Your task to perform on an android device: Show the shopping cart on bestbuy.com. Add "razer huntsman" to the cart on bestbuy.com Image 0: 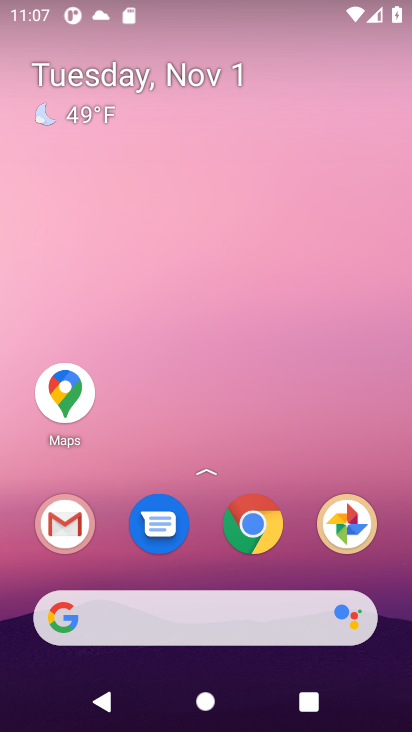
Step 0: press home button
Your task to perform on an android device: Show the shopping cart on bestbuy.com. Add "razer huntsman" to the cart on bestbuy.com Image 1: 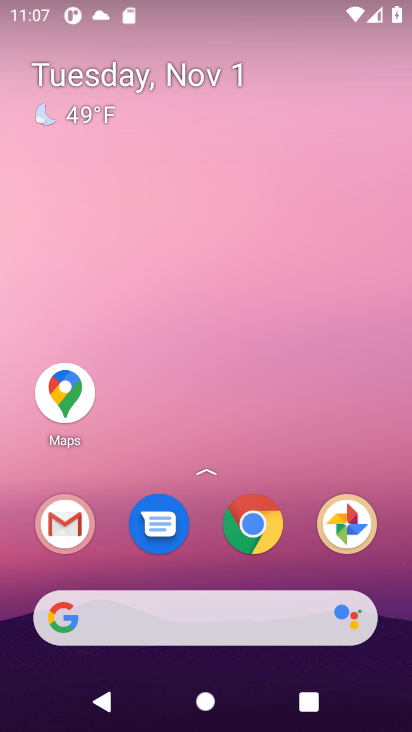
Step 1: press home button
Your task to perform on an android device: Show the shopping cart on bestbuy.com. Add "razer huntsman" to the cart on bestbuy.com Image 2: 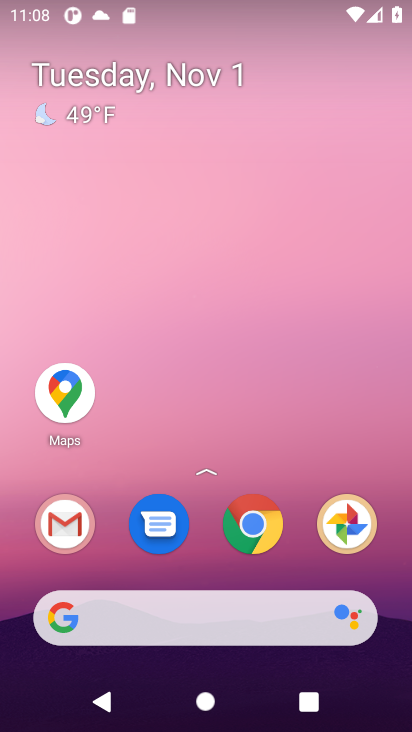
Step 2: click (87, 615)
Your task to perform on an android device: Show the shopping cart on bestbuy.com. Add "razer huntsman" to the cart on bestbuy.com Image 3: 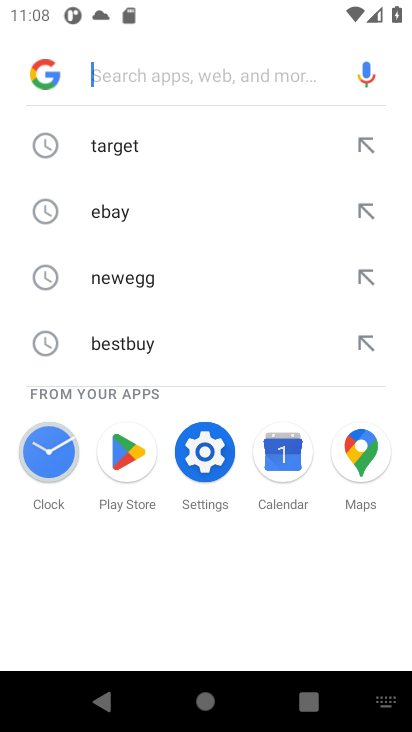
Step 3: type "bestbuy.com"
Your task to perform on an android device: Show the shopping cart on bestbuy.com. Add "razer huntsman" to the cart on bestbuy.com Image 4: 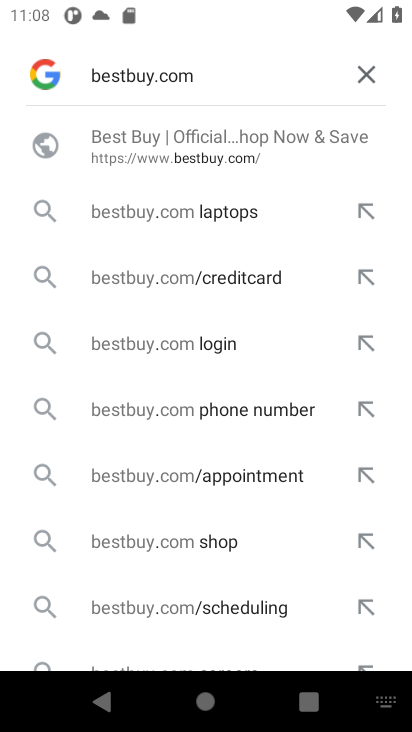
Step 4: press enter
Your task to perform on an android device: Show the shopping cart on bestbuy.com. Add "razer huntsman" to the cart on bestbuy.com Image 5: 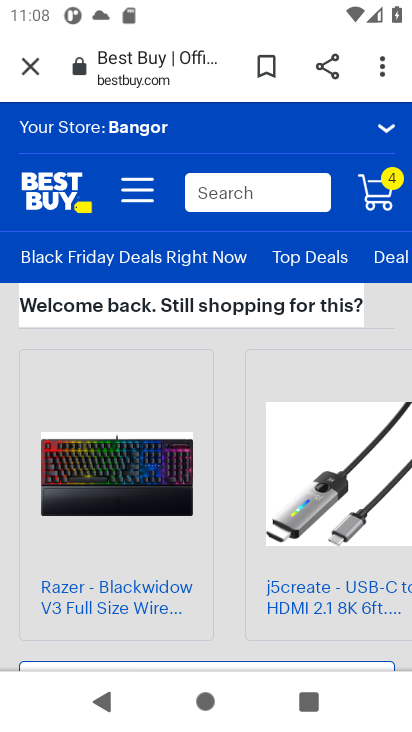
Step 5: click (380, 186)
Your task to perform on an android device: Show the shopping cart on bestbuy.com. Add "razer huntsman" to the cart on bestbuy.com Image 6: 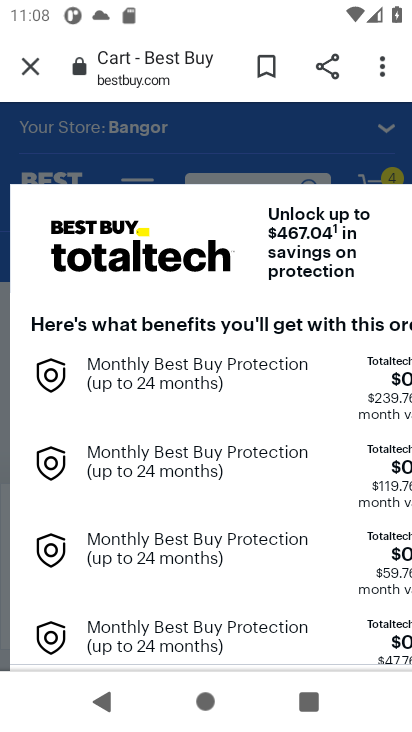
Step 6: click (212, 187)
Your task to perform on an android device: Show the shopping cart on bestbuy.com. Add "razer huntsman" to the cart on bestbuy.com Image 7: 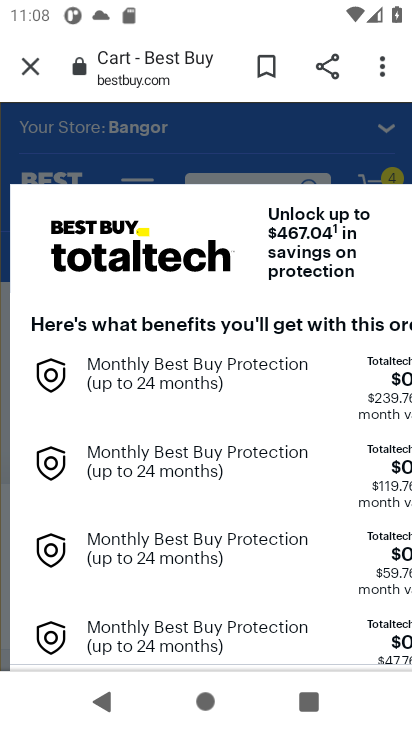
Step 7: drag from (200, 430) to (185, 147)
Your task to perform on an android device: Show the shopping cart on bestbuy.com. Add "razer huntsman" to the cart on bestbuy.com Image 8: 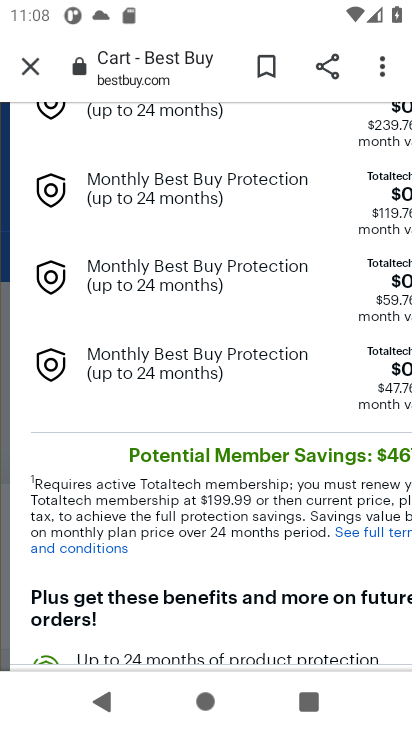
Step 8: drag from (181, 481) to (211, 152)
Your task to perform on an android device: Show the shopping cart on bestbuy.com. Add "razer huntsman" to the cart on bestbuy.com Image 9: 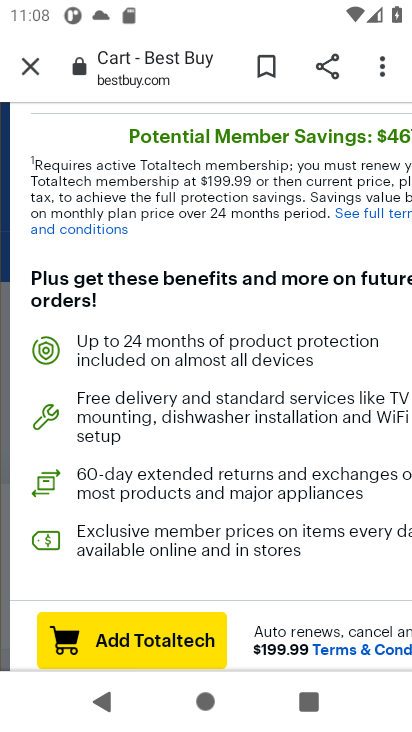
Step 9: drag from (157, 510) to (158, 145)
Your task to perform on an android device: Show the shopping cart on bestbuy.com. Add "razer huntsman" to the cart on bestbuy.com Image 10: 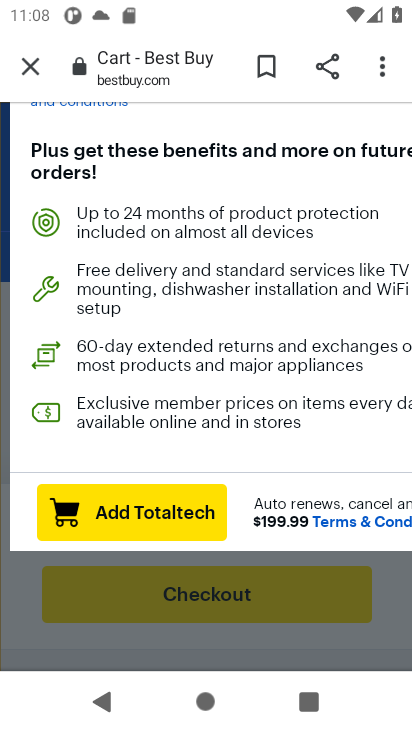
Step 10: click (31, 619)
Your task to perform on an android device: Show the shopping cart on bestbuy.com. Add "razer huntsman" to the cart on bestbuy.com Image 11: 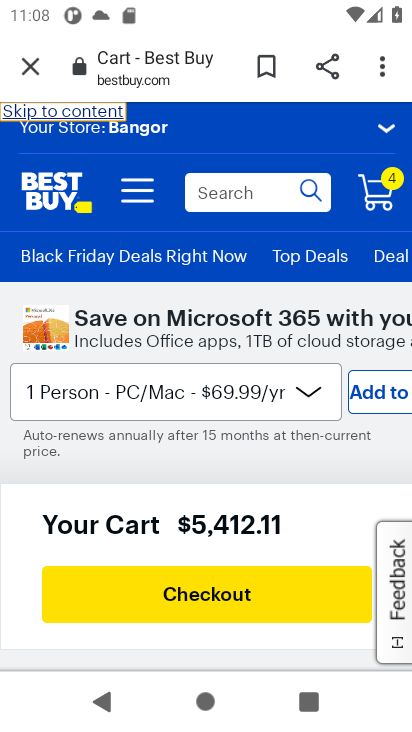
Step 11: click (246, 190)
Your task to perform on an android device: Show the shopping cart on bestbuy.com. Add "razer huntsman" to the cart on bestbuy.com Image 12: 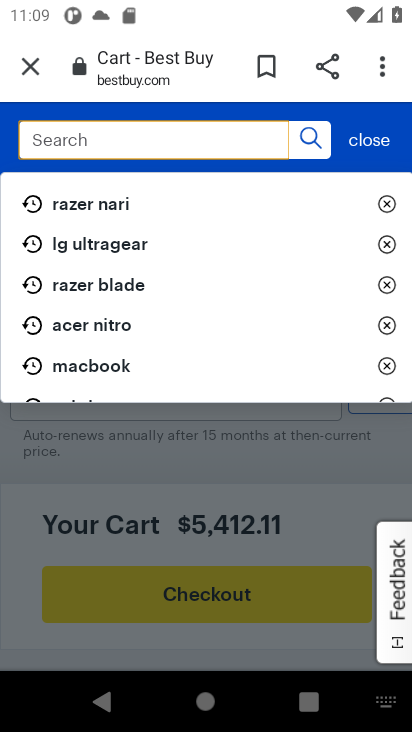
Step 12: type "razer huntsman"
Your task to perform on an android device: Show the shopping cart on bestbuy.com. Add "razer huntsman" to the cart on bestbuy.com Image 13: 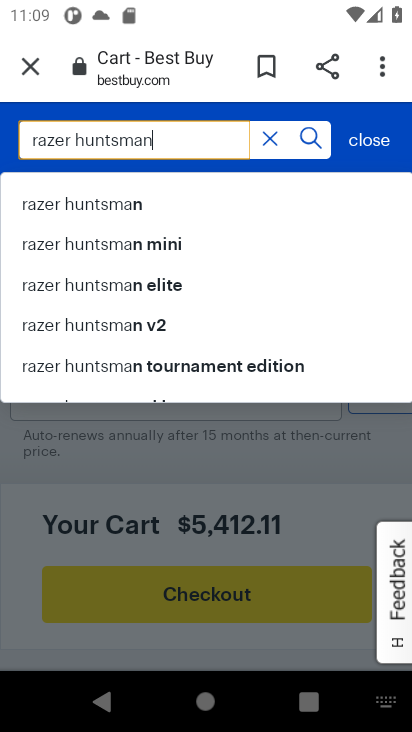
Step 13: press enter
Your task to perform on an android device: Show the shopping cart on bestbuy.com. Add "razer huntsman" to the cart on bestbuy.com Image 14: 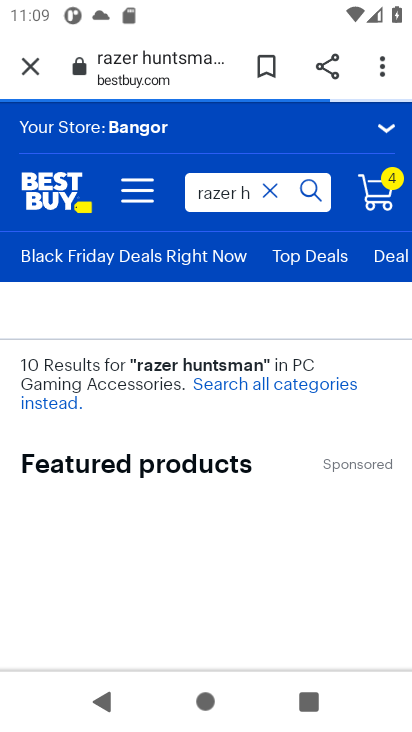
Step 14: drag from (214, 557) to (212, 253)
Your task to perform on an android device: Show the shopping cart on bestbuy.com. Add "razer huntsman" to the cart on bestbuy.com Image 15: 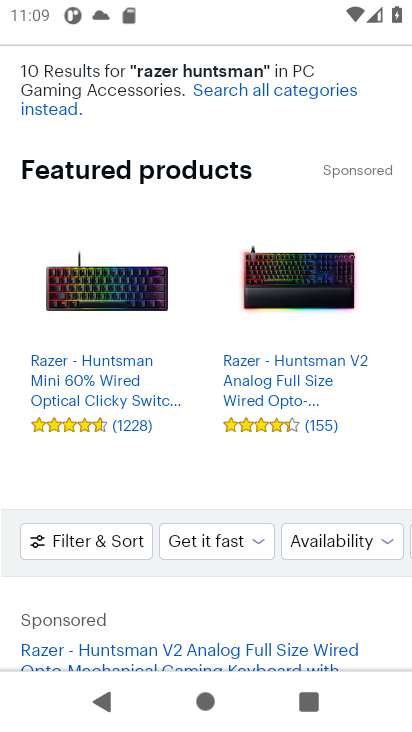
Step 15: drag from (198, 498) to (195, 243)
Your task to perform on an android device: Show the shopping cart on bestbuy.com. Add "razer huntsman" to the cart on bestbuy.com Image 16: 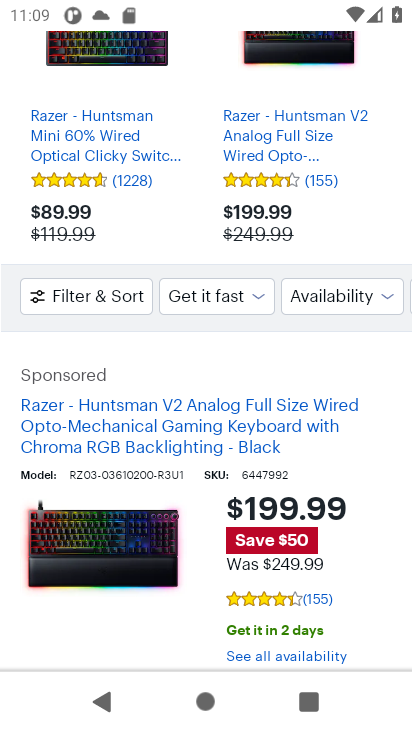
Step 16: drag from (191, 587) to (210, 301)
Your task to perform on an android device: Show the shopping cart on bestbuy.com. Add "razer huntsman" to the cart on bestbuy.com Image 17: 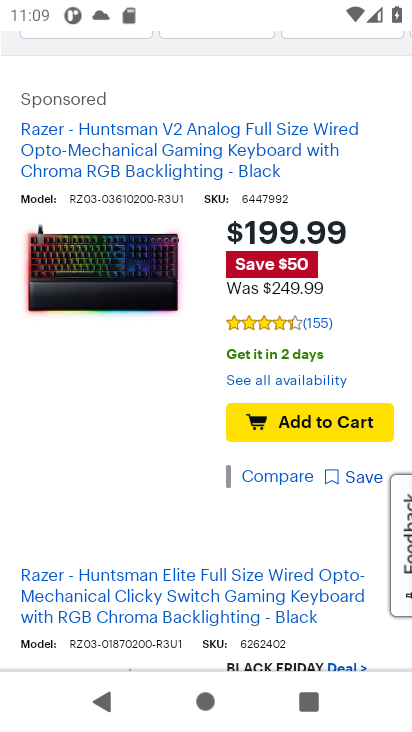
Step 17: click (307, 422)
Your task to perform on an android device: Show the shopping cart on bestbuy.com. Add "razer huntsman" to the cart on bestbuy.com Image 18: 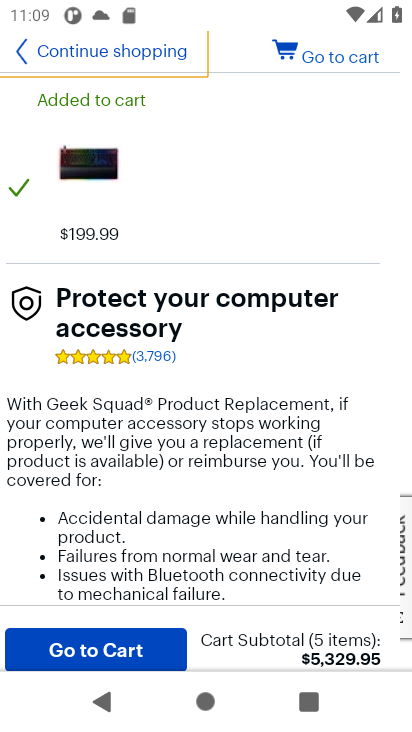
Step 18: task complete